Your task to perform on an android device: Open the calendar and show me this week's events? Image 0: 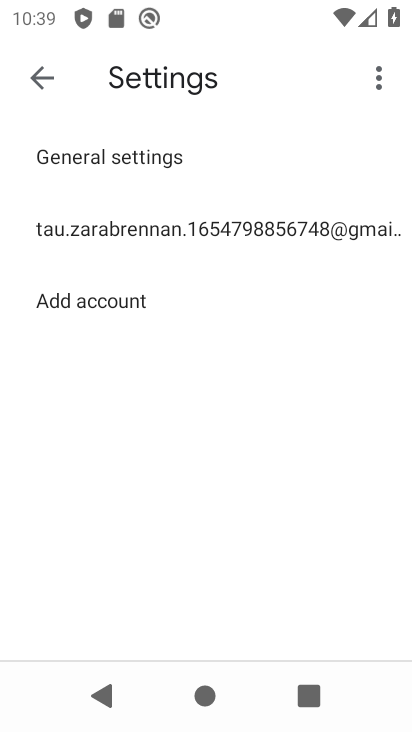
Step 0: press home button
Your task to perform on an android device: Open the calendar and show me this week's events? Image 1: 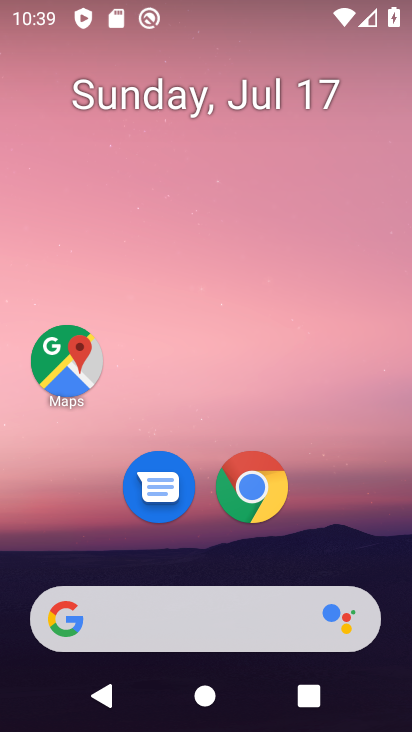
Step 1: drag from (351, 534) to (320, 123)
Your task to perform on an android device: Open the calendar and show me this week's events? Image 2: 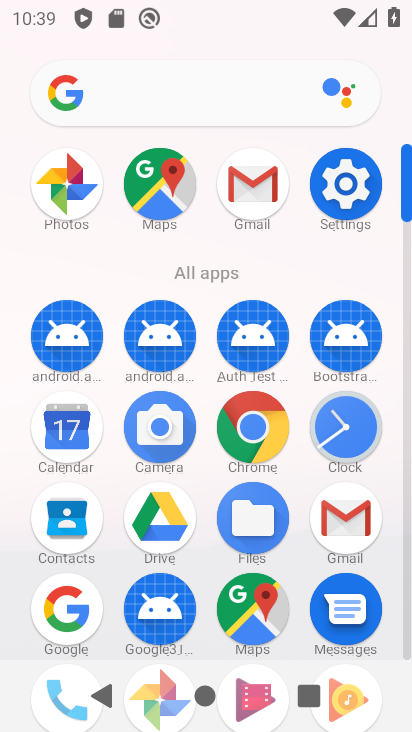
Step 2: drag from (178, 511) to (218, 231)
Your task to perform on an android device: Open the calendar and show me this week's events? Image 3: 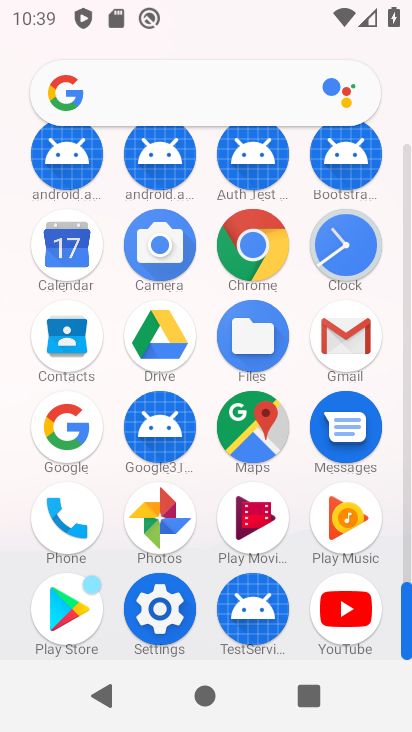
Step 3: drag from (287, 524) to (278, 286)
Your task to perform on an android device: Open the calendar and show me this week's events? Image 4: 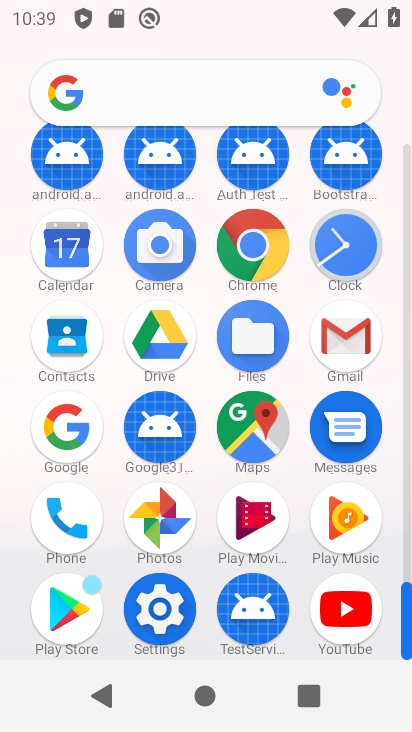
Step 4: drag from (50, 228) to (108, 197)
Your task to perform on an android device: Open the calendar and show me this week's events? Image 5: 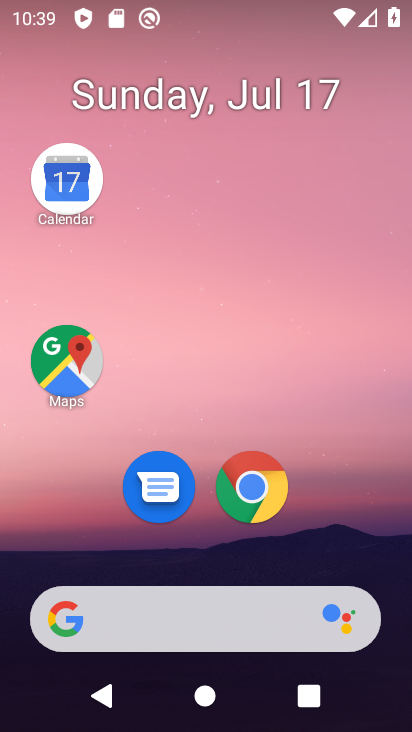
Step 5: click (80, 177)
Your task to perform on an android device: Open the calendar and show me this week's events? Image 6: 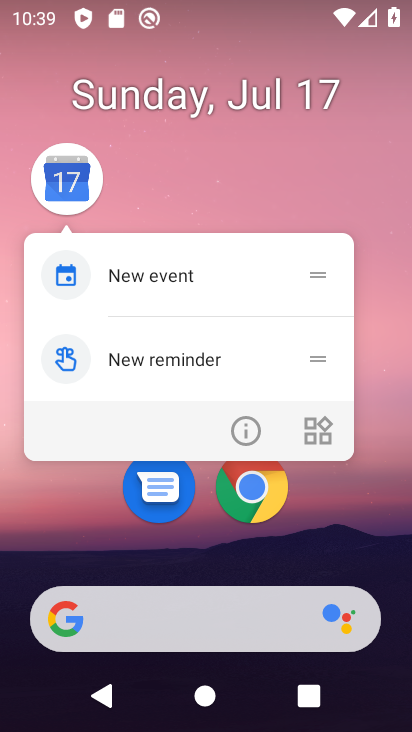
Step 6: click (79, 177)
Your task to perform on an android device: Open the calendar and show me this week's events? Image 7: 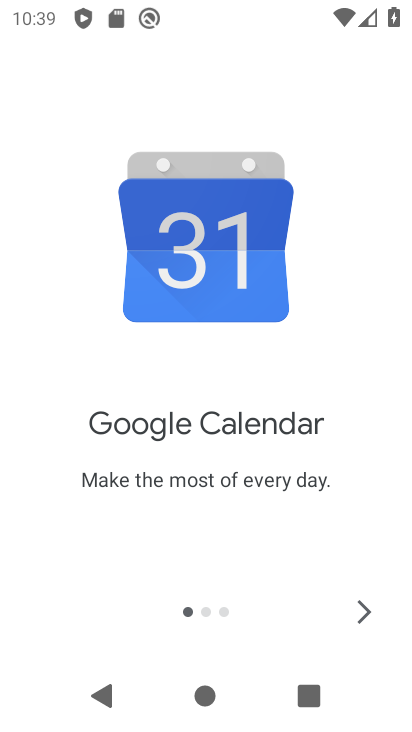
Step 7: click (366, 602)
Your task to perform on an android device: Open the calendar and show me this week's events? Image 8: 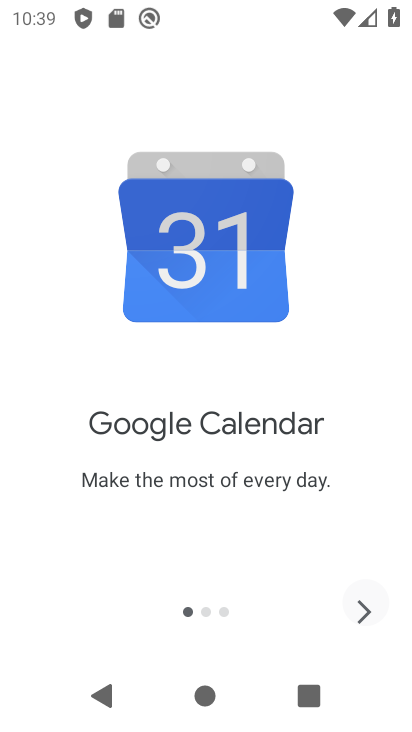
Step 8: click (366, 602)
Your task to perform on an android device: Open the calendar and show me this week's events? Image 9: 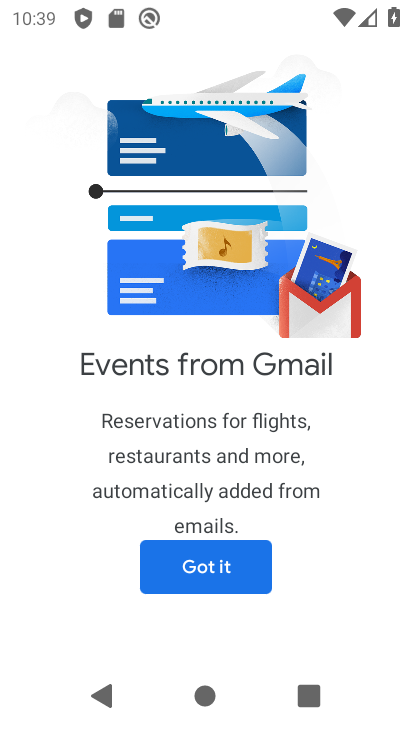
Step 9: click (252, 560)
Your task to perform on an android device: Open the calendar and show me this week's events? Image 10: 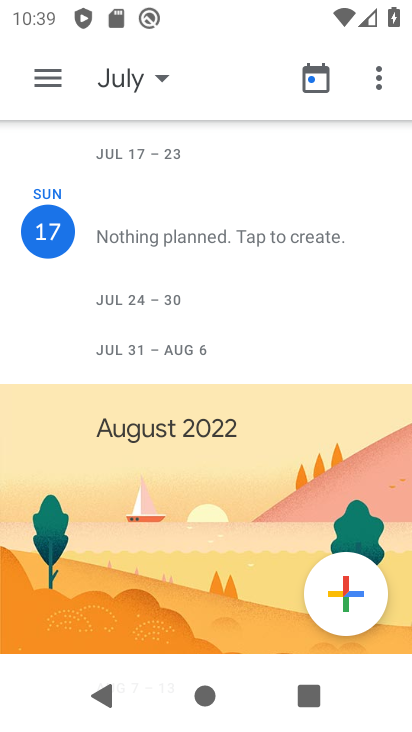
Step 10: click (58, 80)
Your task to perform on an android device: Open the calendar and show me this week's events? Image 11: 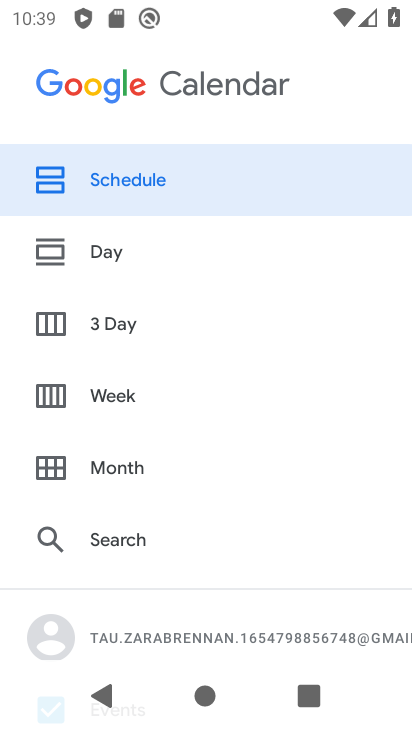
Step 11: click (183, 395)
Your task to perform on an android device: Open the calendar and show me this week's events? Image 12: 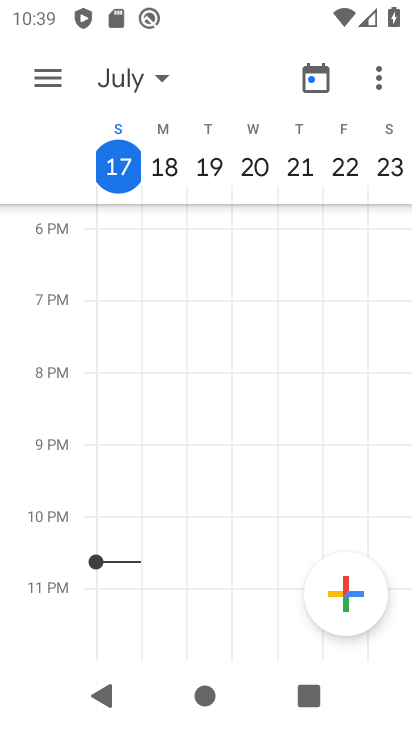
Step 12: task complete